Your task to perform on an android device: Go to CNN.com Image 0: 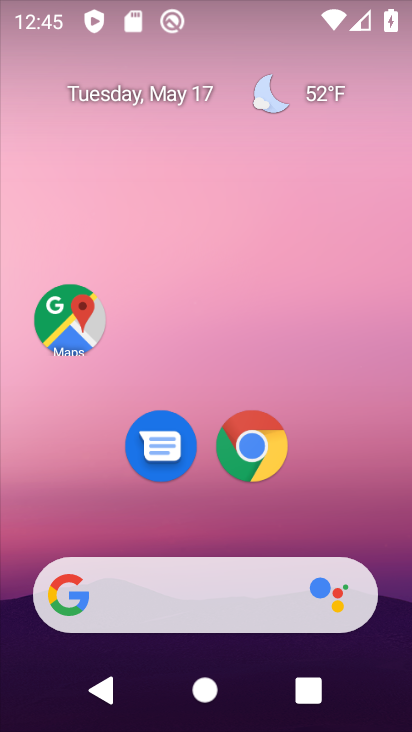
Step 0: click (258, 458)
Your task to perform on an android device: Go to CNN.com Image 1: 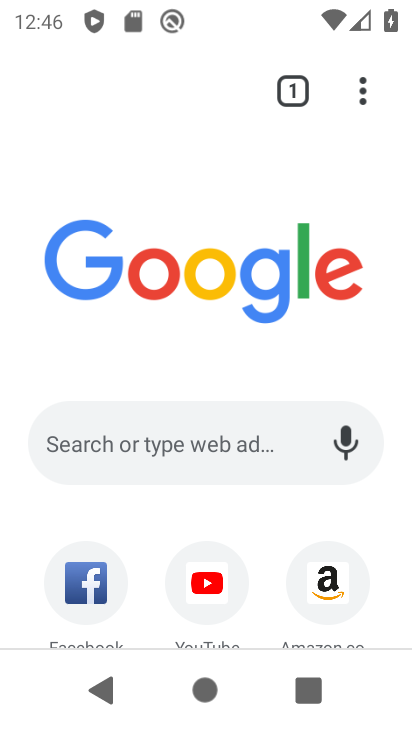
Step 1: click (198, 440)
Your task to perform on an android device: Go to CNN.com Image 2: 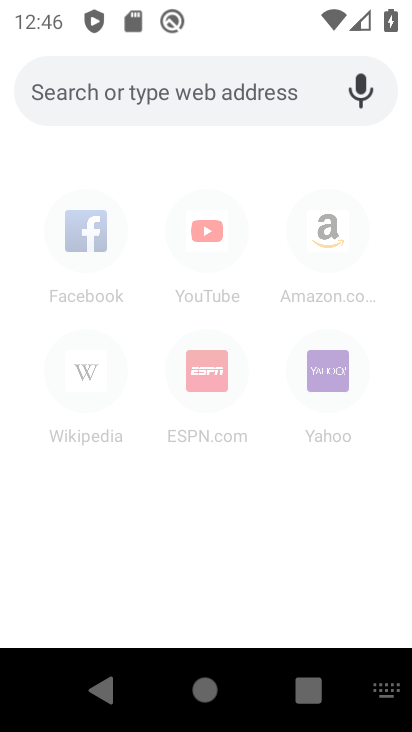
Step 2: type "cnn.com"
Your task to perform on an android device: Go to CNN.com Image 3: 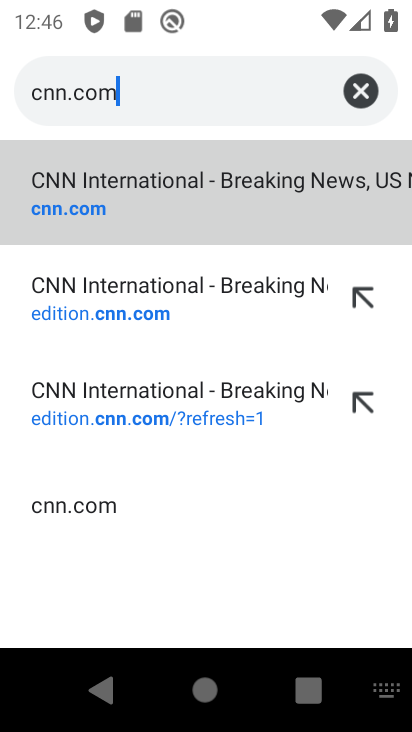
Step 3: click (256, 211)
Your task to perform on an android device: Go to CNN.com Image 4: 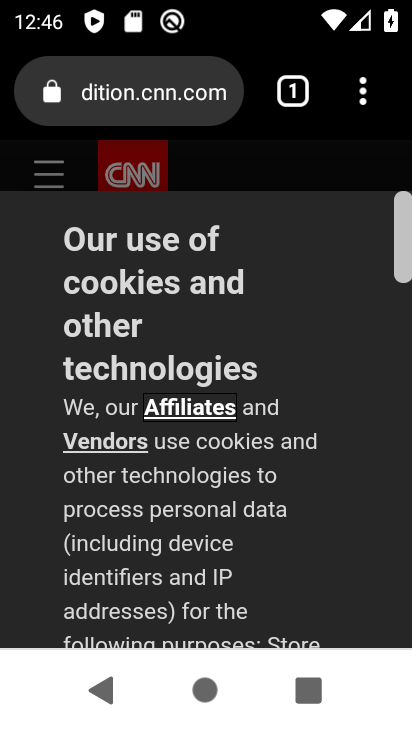
Step 4: task complete